Your task to perform on an android device: see sites visited before in the chrome app Image 0: 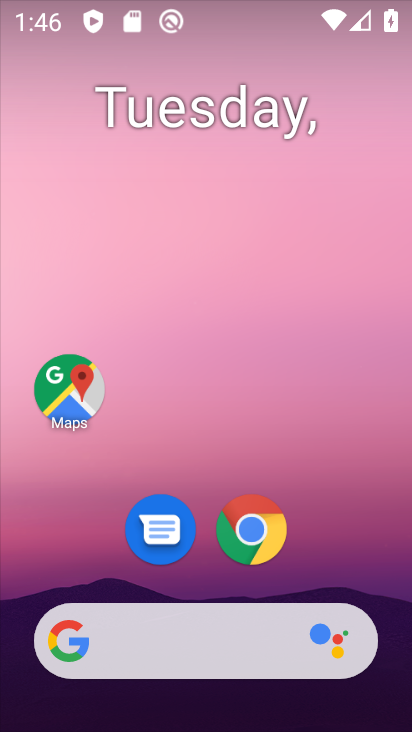
Step 0: click (251, 535)
Your task to perform on an android device: see sites visited before in the chrome app Image 1: 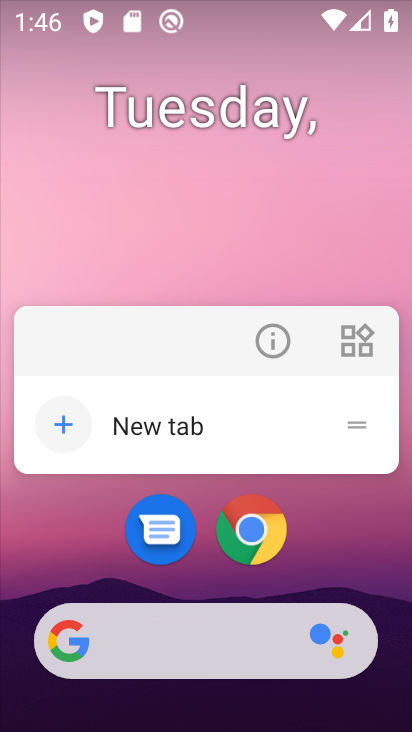
Step 1: click (251, 535)
Your task to perform on an android device: see sites visited before in the chrome app Image 2: 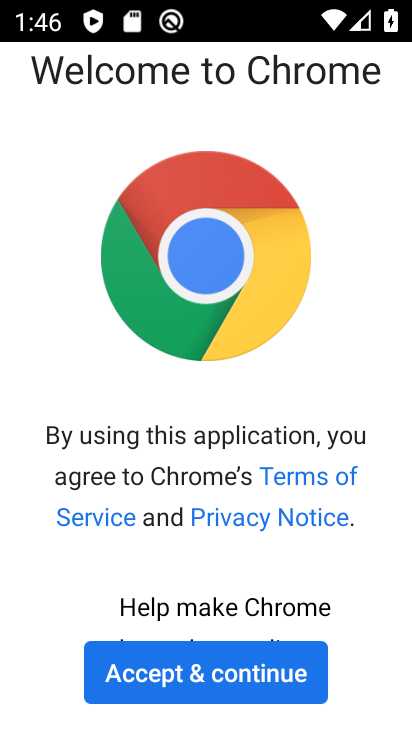
Step 2: click (263, 682)
Your task to perform on an android device: see sites visited before in the chrome app Image 3: 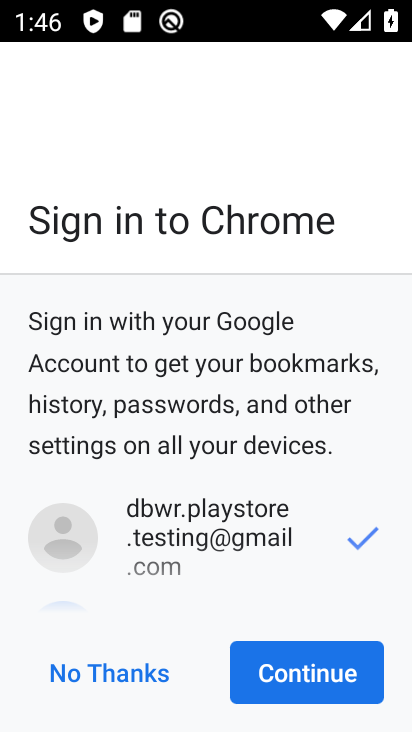
Step 3: click (277, 682)
Your task to perform on an android device: see sites visited before in the chrome app Image 4: 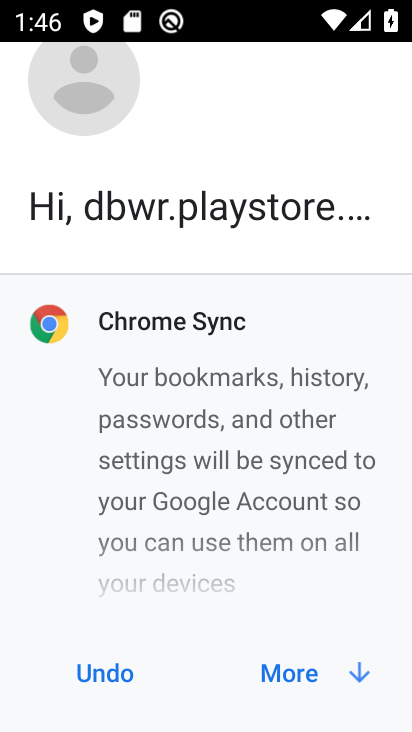
Step 4: click (277, 682)
Your task to perform on an android device: see sites visited before in the chrome app Image 5: 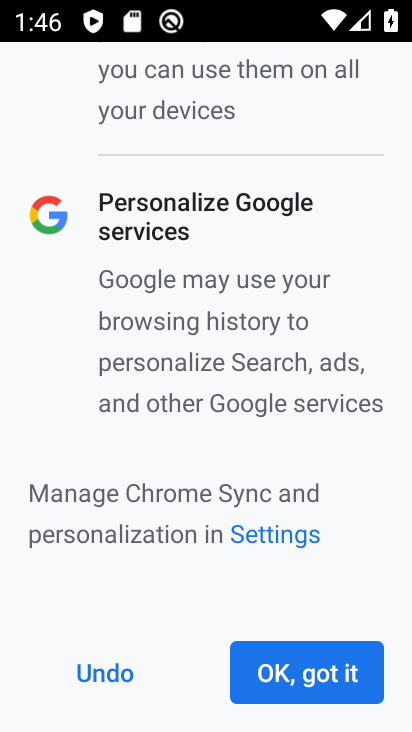
Step 5: click (293, 676)
Your task to perform on an android device: see sites visited before in the chrome app Image 6: 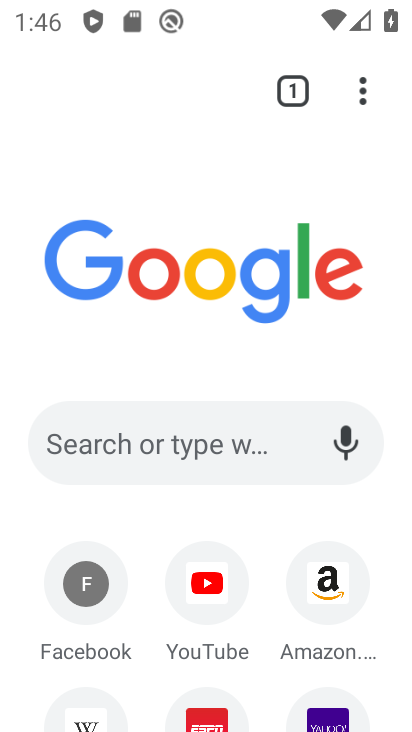
Step 6: click (366, 79)
Your task to perform on an android device: see sites visited before in the chrome app Image 7: 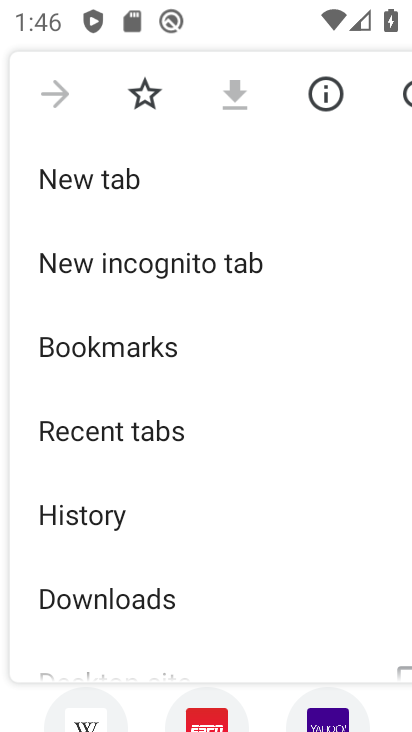
Step 7: click (188, 506)
Your task to perform on an android device: see sites visited before in the chrome app Image 8: 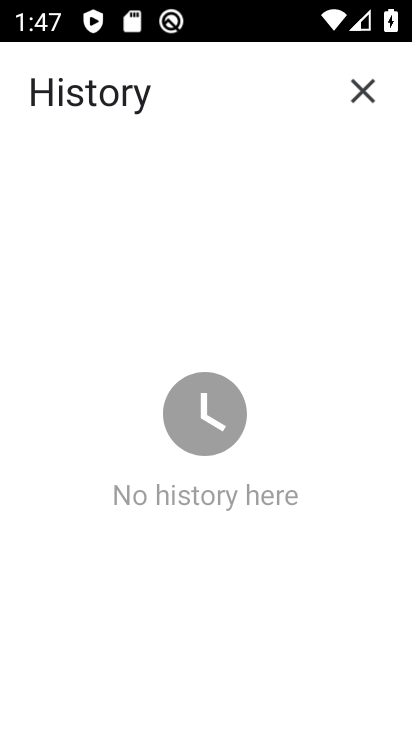
Step 8: task complete